Your task to perform on an android device: Is it going to rain tomorrow? Image 0: 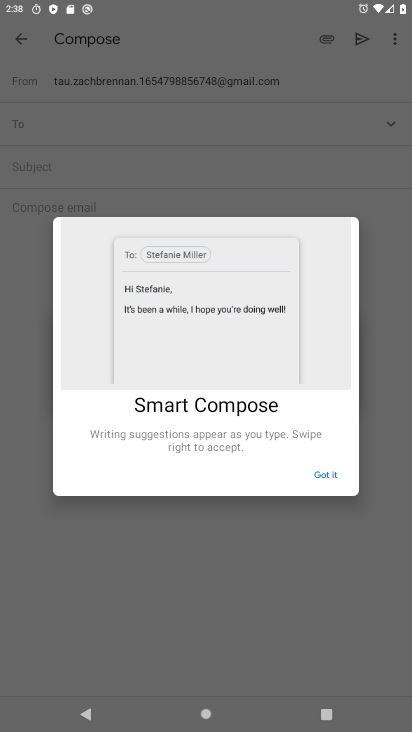
Step 0: press home button
Your task to perform on an android device: Is it going to rain tomorrow? Image 1: 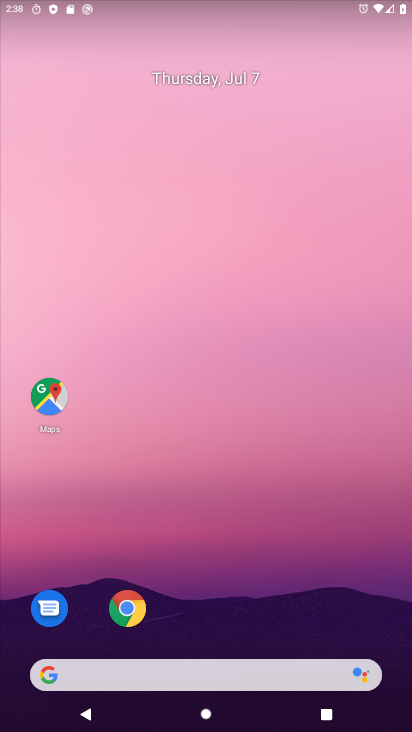
Step 1: drag from (239, 727) to (199, 106)
Your task to perform on an android device: Is it going to rain tomorrow? Image 2: 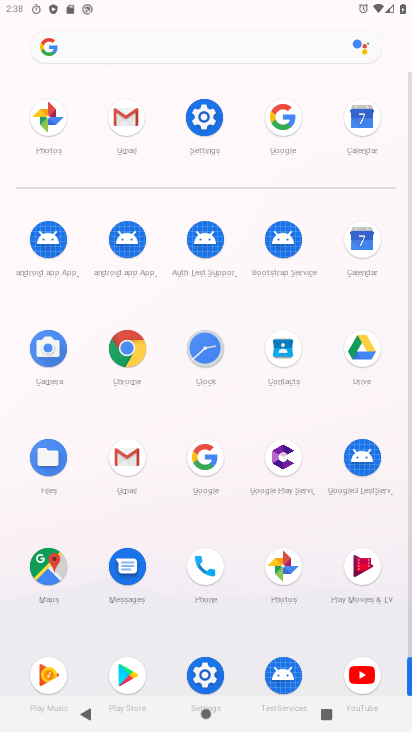
Step 2: click (201, 459)
Your task to perform on an android device: Is it going to rain tomorrow? Image 3: 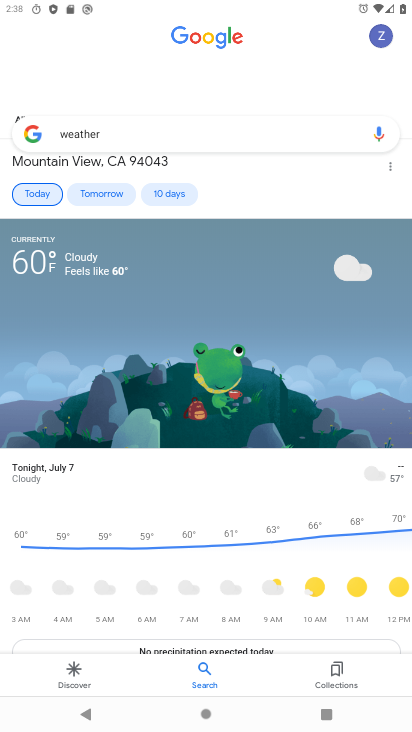
Step 3: click (99, 192)
Your task to perform on an android device: Is it going to rain tomorrow? Image 4: 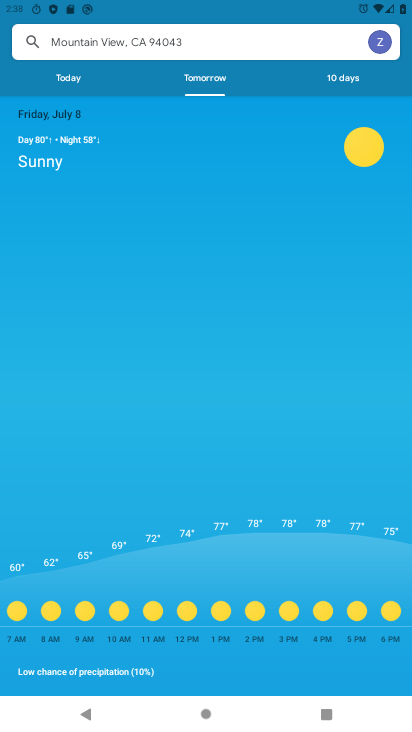
Step 4: task complete